Your task to perform on an android device: toggle pop-ups in chrome Image 0: 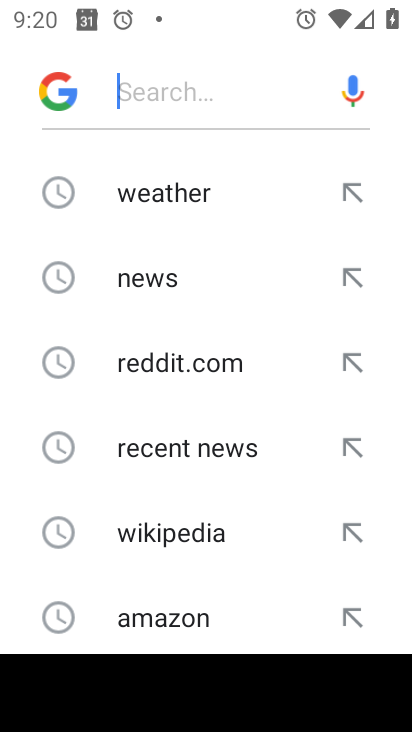
Step 0: press back button
Your task to perform on an android device: toggle pop-ups in chrome Image 1: 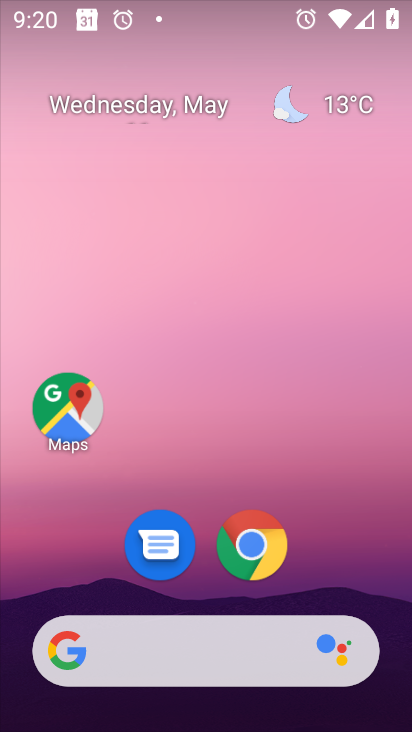
Step 1: click (248, 536)
Your task to perform on an android device: toggle pop-ups in chrome Image 2: 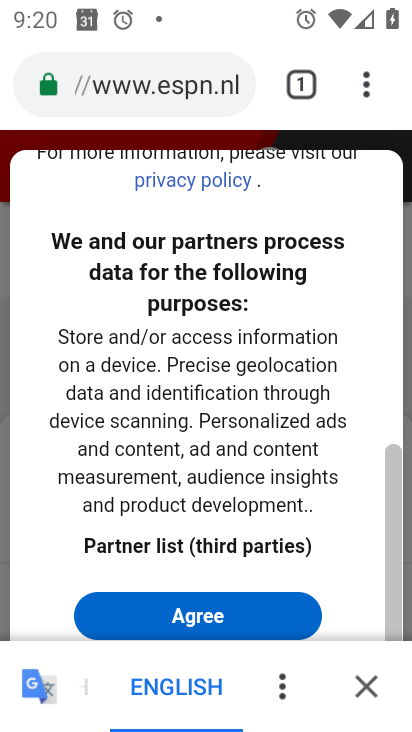
Step 2: drag from (362, 87) to (150, 599)
Your task to perform on an android device: toggle pop-ups in chrome Image 3: 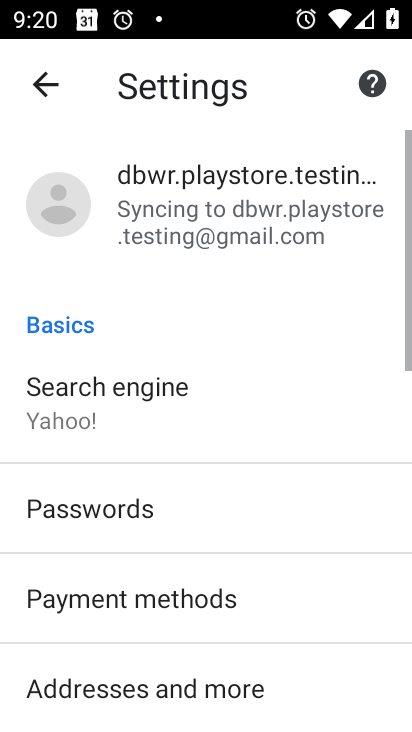
Step 3: drag from (276, 625) to (278, 275)
Your task to perform on an android device: toggle pop-ups in chrome Image 4: 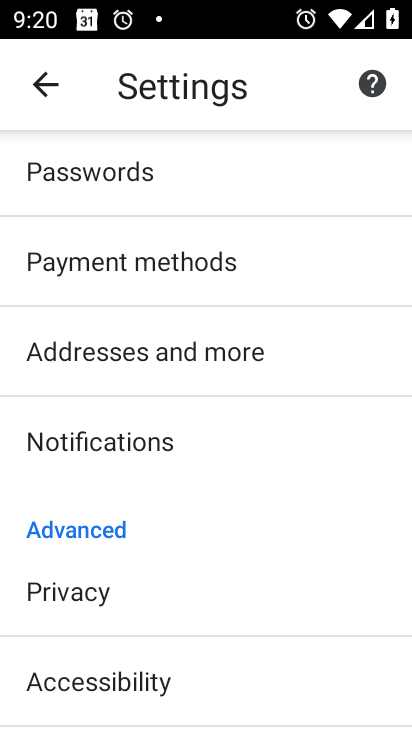
Step 4: drag from (296, 596) to (272, 205)
Your task to perform on an android device: toggle pop-ups in chrome Image 5: 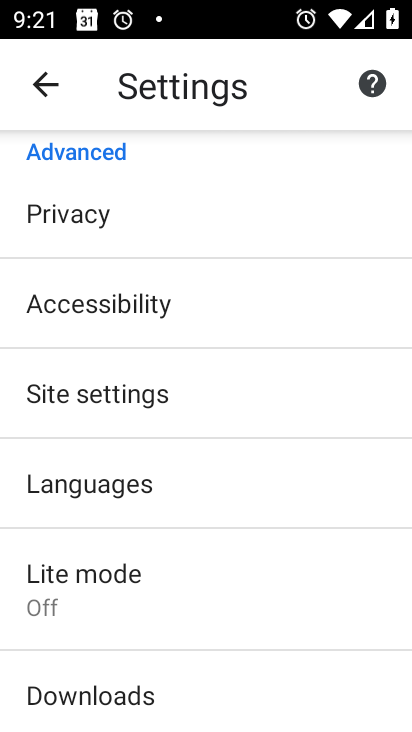
Step 5: click (194, 409)
Your task to perform on an android device: toggle pop-ups in chrome Image 6: 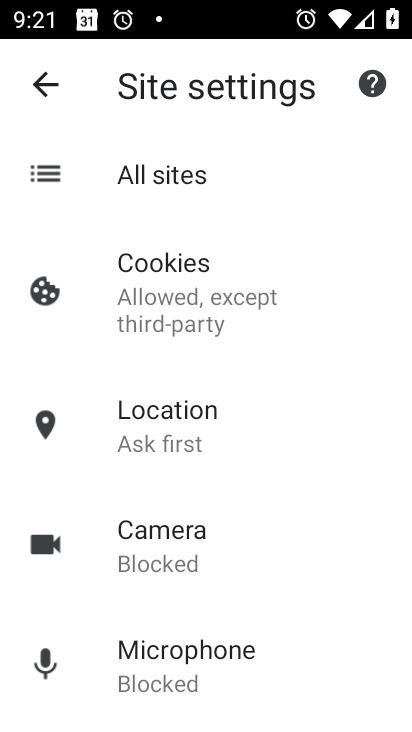
Step 6: drag from (299, 602) to (297, 160)
Your task to perform on an android device: toggle pop-ups in chrome Image 7: 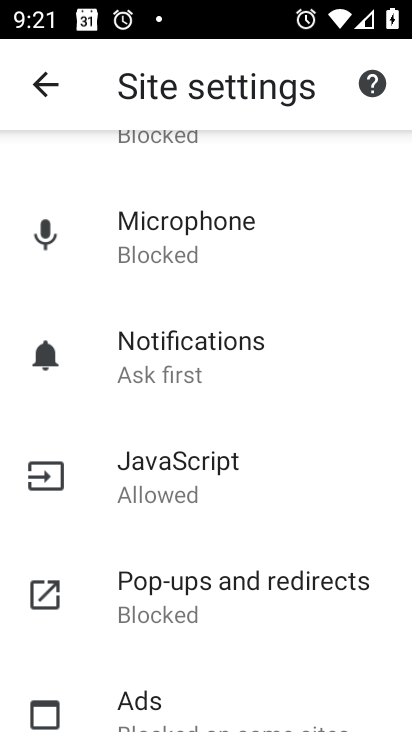
Step 7: click (211, 597)
Your task to perform on an android device: toggle pop-ups in chrome Image 8: 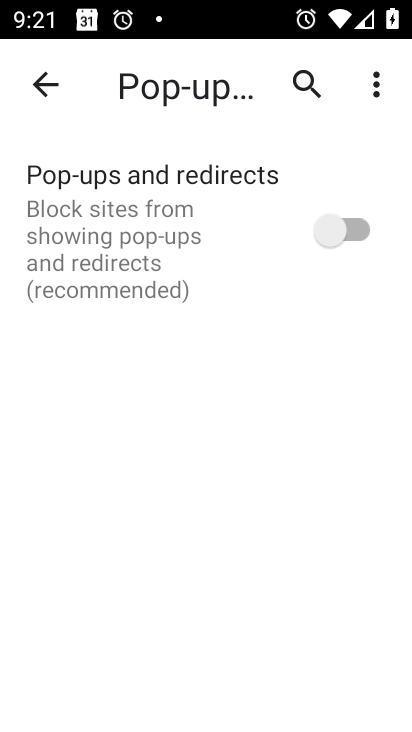
Step 8: click (364, 226)
Your task to perform on an android device: toggle pop-ups in chrome Image 9: 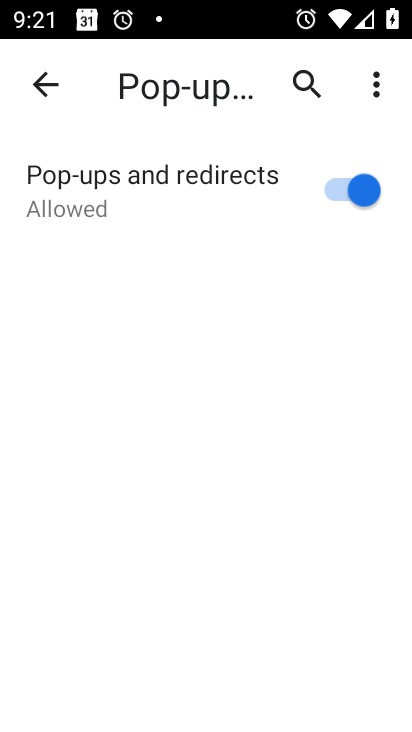
Step 9: task complete